Your task to perform on an android device: Open Yahoo.com Image 0: 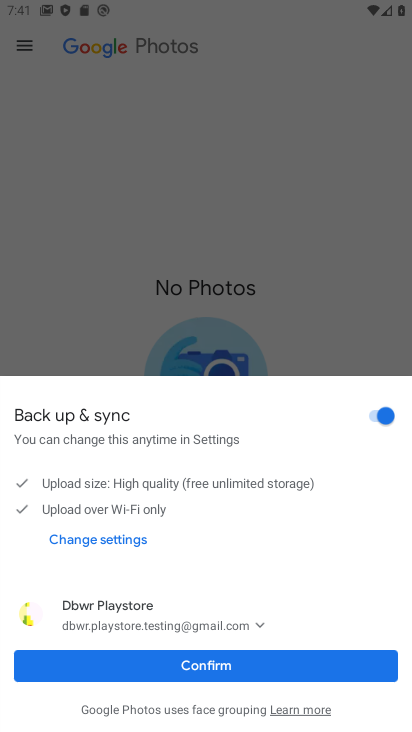
Step 0: press home button
Your task to perform on an android device: Open Yahoo.com Image 1: 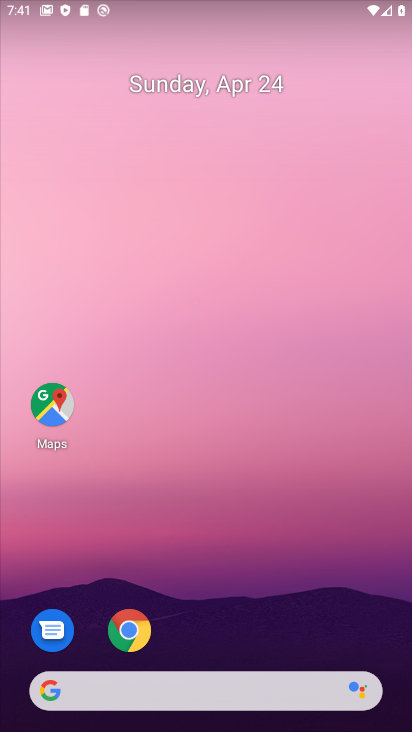
Step 1: drag from (334, 375) to (359, 76)
Your task to perform on an android device: Open Yahoo.com Image 2: 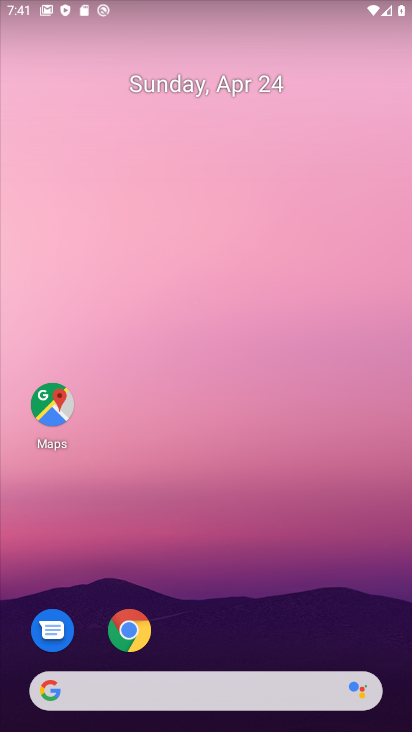
Step 2: drag from (317, 500) to (381, 49)
Your task to perform on an android device: Open Yahoo.com Image 3: 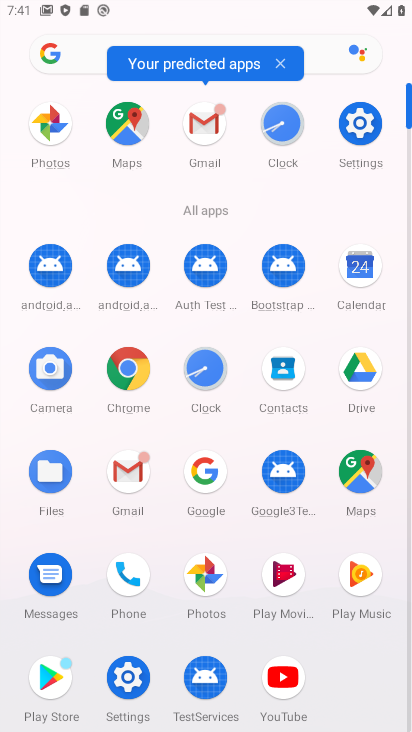
Step 3: click (113, 377)
Your task to perform on an android device: Open Yahoo.com Image 4: 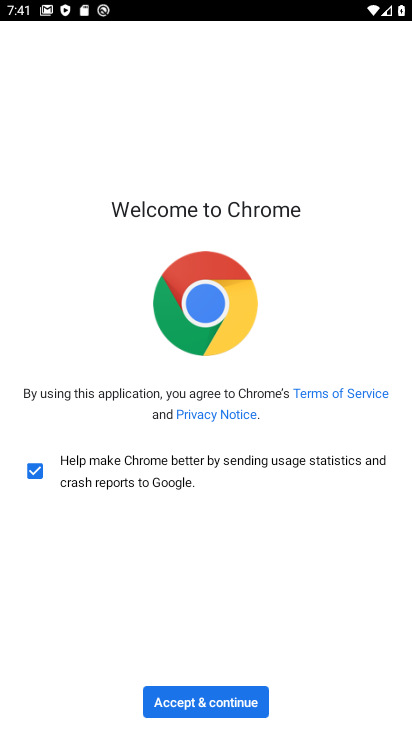
Step 4: click (252, 695)
Your task to perform on an android device: Open Yahoo.com Image 5: 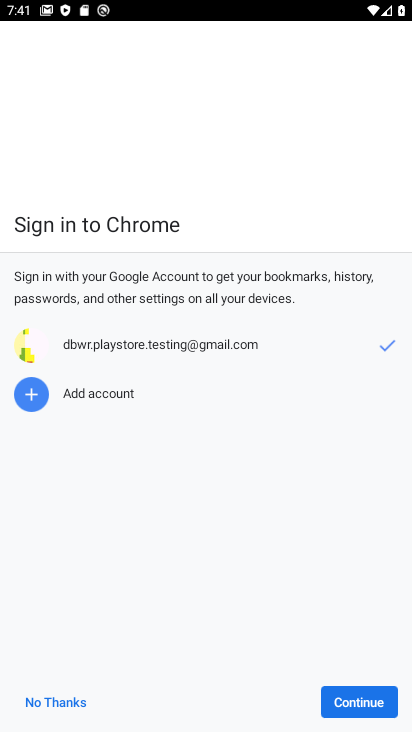
Step 5: click (340, 701)
Your task to perform on an android device: Open Yahoo.com Image 6: 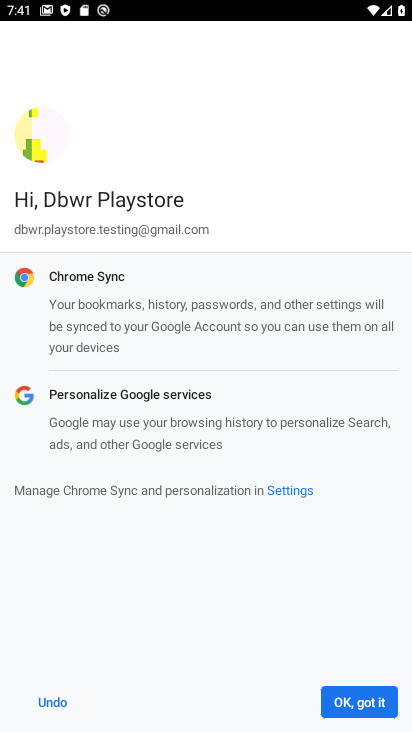
Step 6: click (369, 702)
Your task to perform on an android device: Open Yahoo.com Image 7: 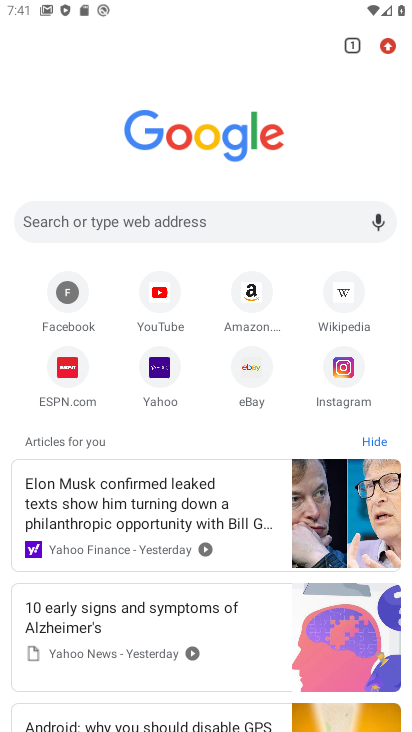
Step 7: click (163, 372)
Your task to perform on an android device: Open Yahoo.com Image 8: 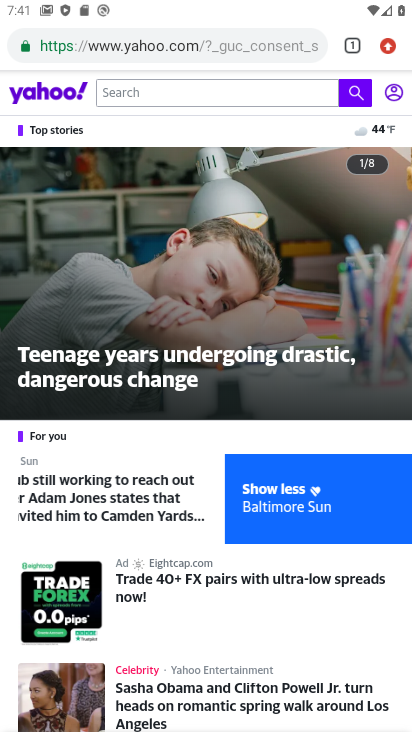
Step 8: task complete